Your task to perform on an android device: turn vacation reply on in the gmail app Image 0: 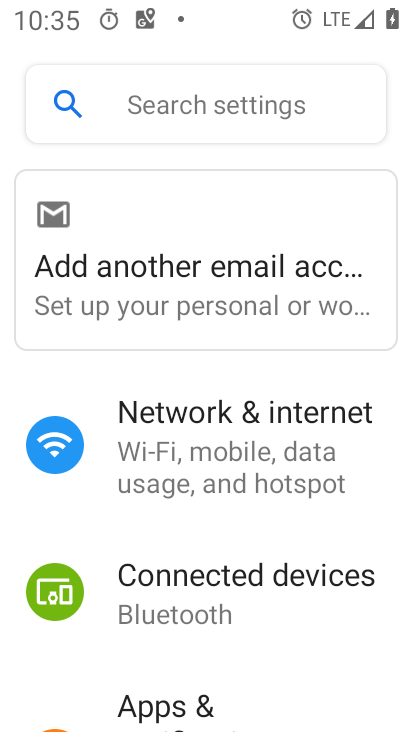
Step 0: press home button
Your task to perform on an android device: turn vacation reply on in the gmail app Image 1: 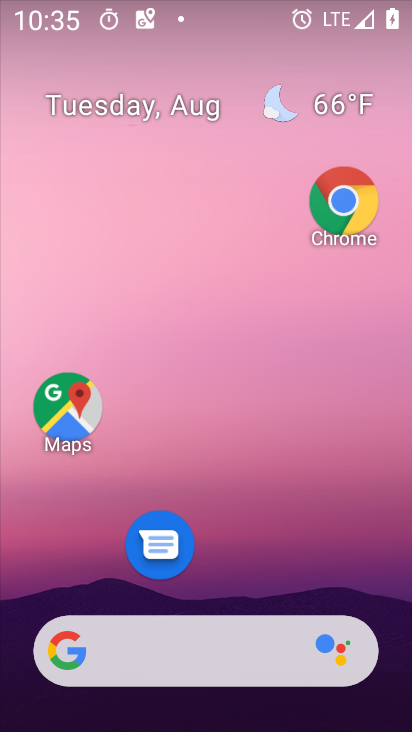
Step 1: drag from (199, 669) to (248, 13)
Your task to perform on an android device: turn vacation reply on in the gmail app Image 2: 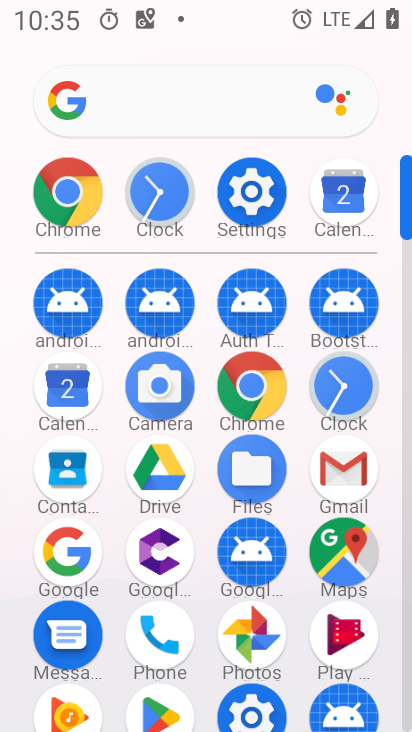
Step 2: drag from (275, 514) to (304, 109)
Your task to perform on an android device: turn vacation reply on in the gmail app Image 3: 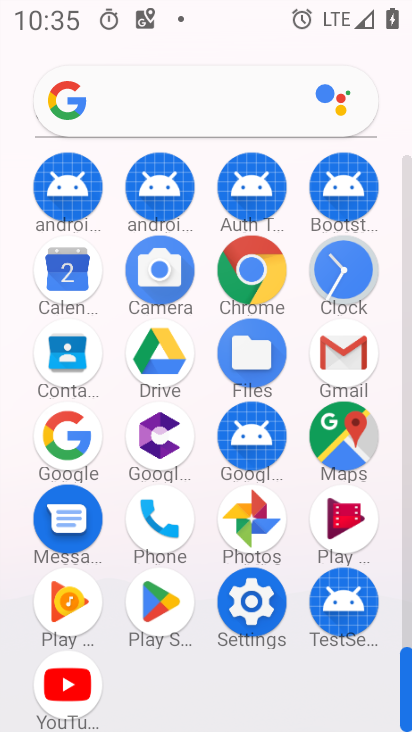
Step 3: click (350, 350)
Your task to perform on an android device: turn vacation reply on in the gmail app Image 4: 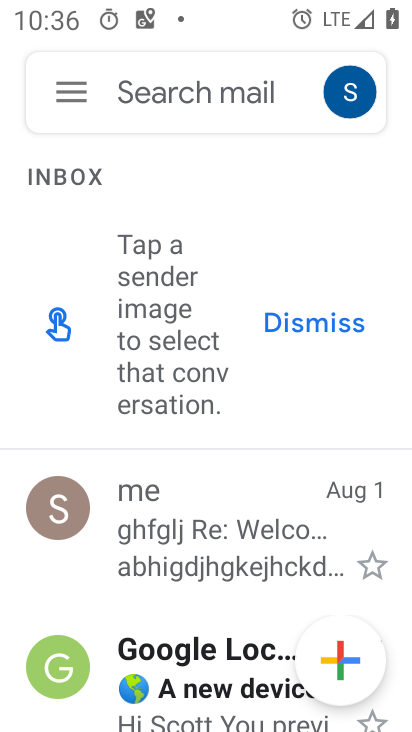
Step 4: click (52, 53)
Your task to perform on an android device: turn vacation reply on in the gmail app Image 5: 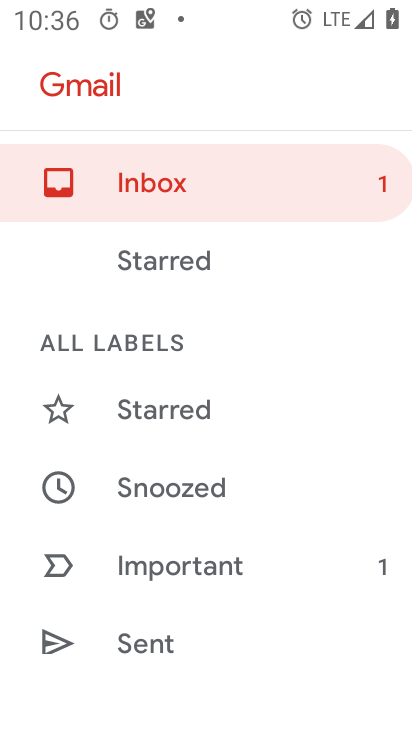
Step 5: drag from (151, 560) to (272, 9)
Your task to perform on an android device: turn vacation reply on in the gmail app Image 6: 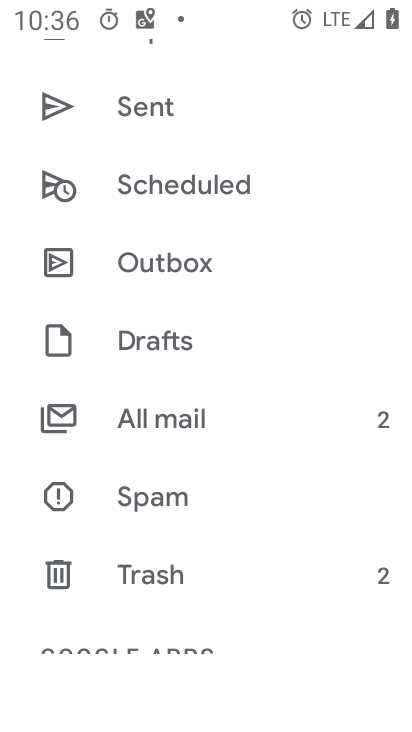
Step 6: drag from (186, 483) to (236, 76)
Your task to perform on an android device: turn vacation reply on in the gmail app Image 7: 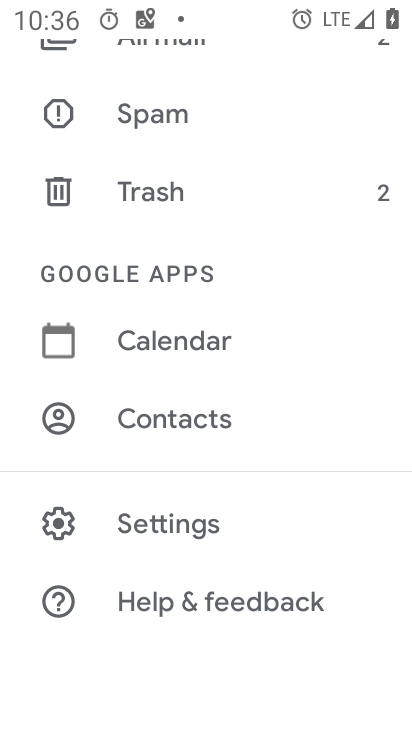
Step 7: click (207, 531)
Your task to perform on an android device: turn vacation reply on in the gmail app Image 8: 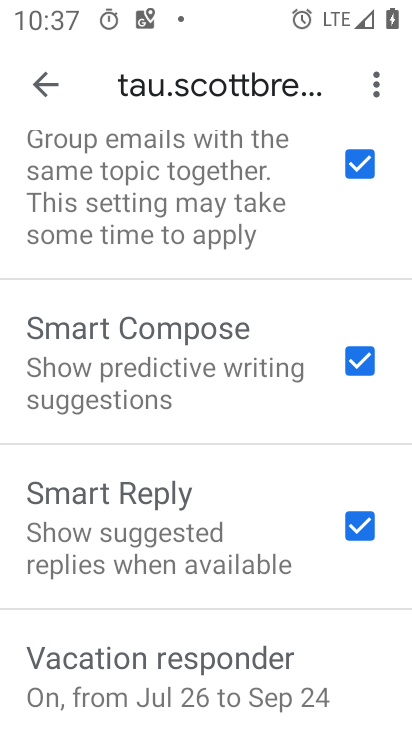
Step 8: click (190, 693)
Your task to perform on an android device: turn vacation reply on in the gmail app Image 9: 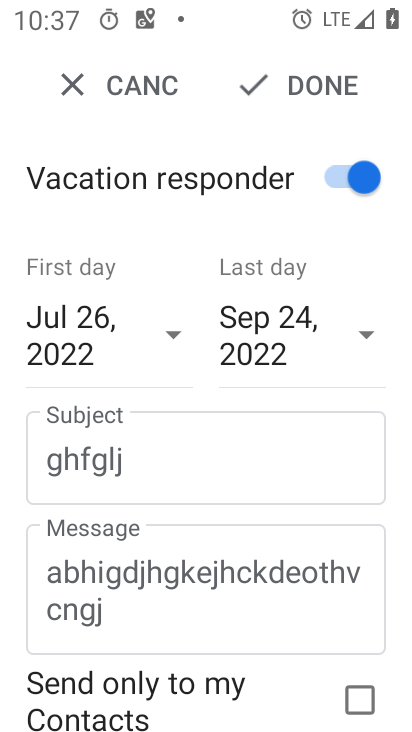
Step 9: task complete